Your task to perform on an android device: open a new tab in the chrome app Image 0: 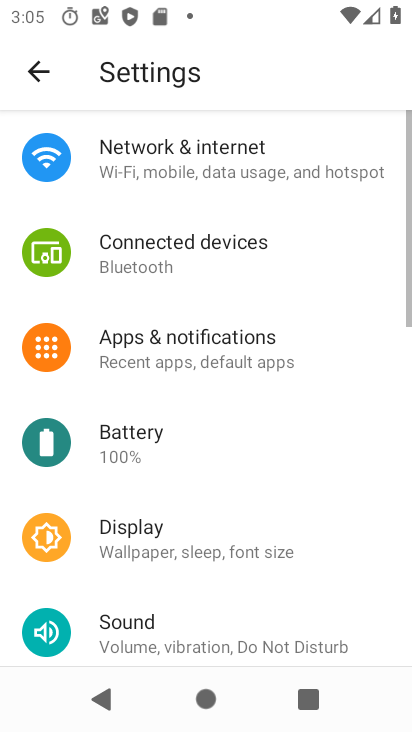
Step 0: press home button
Your task to perform on an android device: open a new tab in the chrome app Image 1: 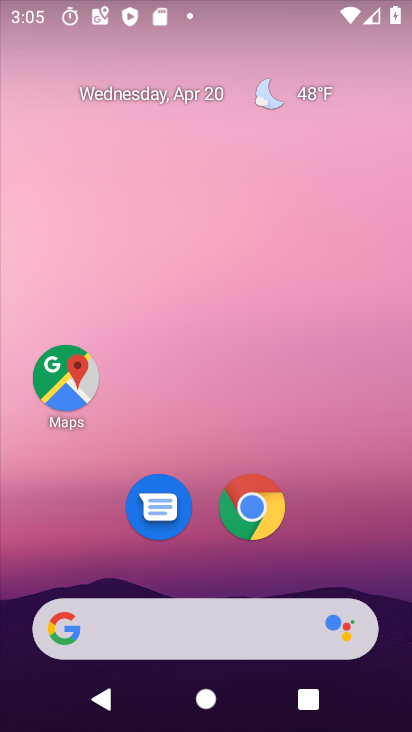
Step 1: click (262, 515)
Your task to perform on an android device: open a new tab in the chrome app Image 2: 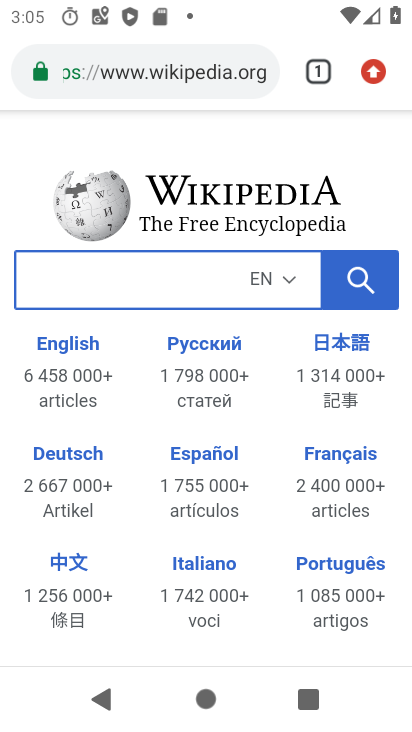
Step 2: task complete